Your task to perform on an android device: open app "LiveIn - Share Your Moment" (install if not already installed) and go to login screen Image 0: 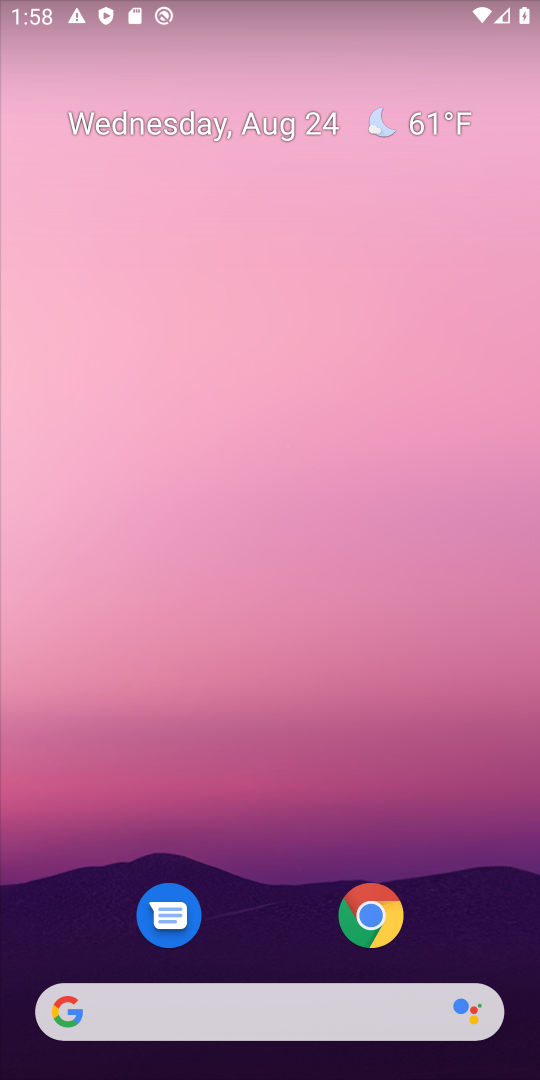
Step 0: drag from (249, 841) to (244, 212)
Your task to perform on an android device: open app "LiveIn - Share Your Moment" (install if not already installed) and go to login screen Image 1: 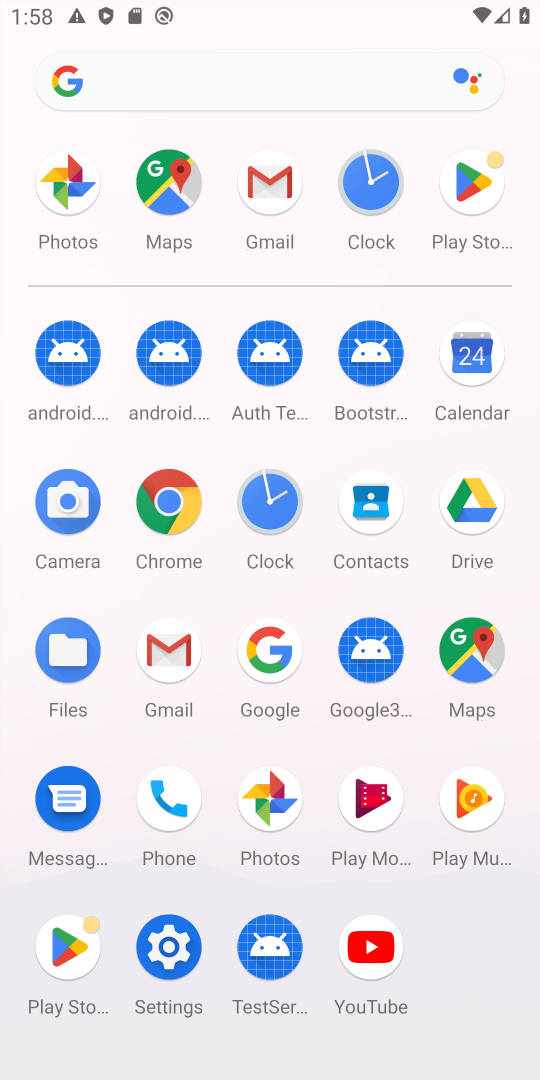
Step 1: click (460, 198)
Your task to perform on an android device: open app "LiveIn - Share Your Moment" (install if not already installed) and go to login screen Image 2: 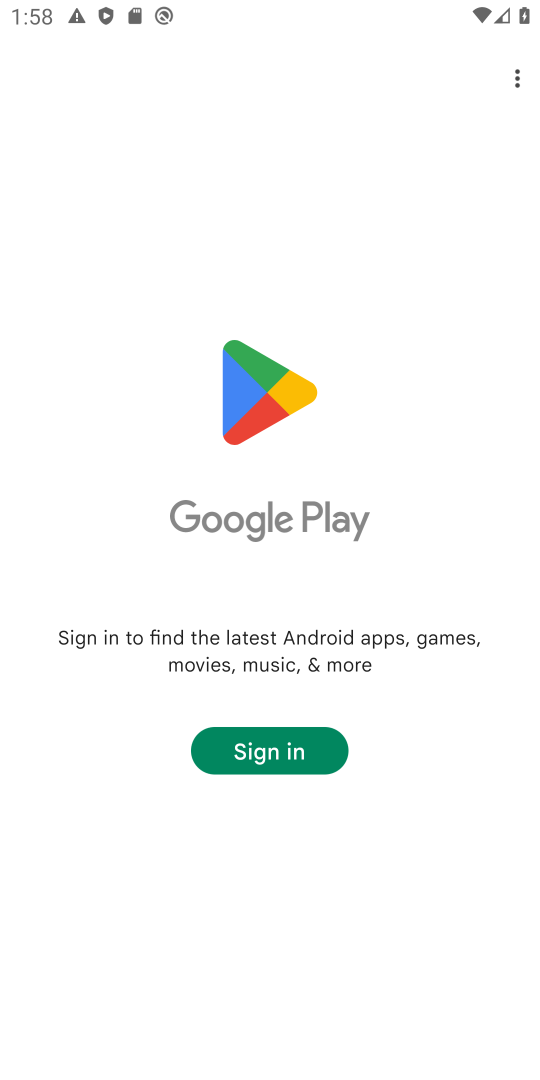
Step 2: task complete